Your task to perform on an android device: check data usage Image 0: 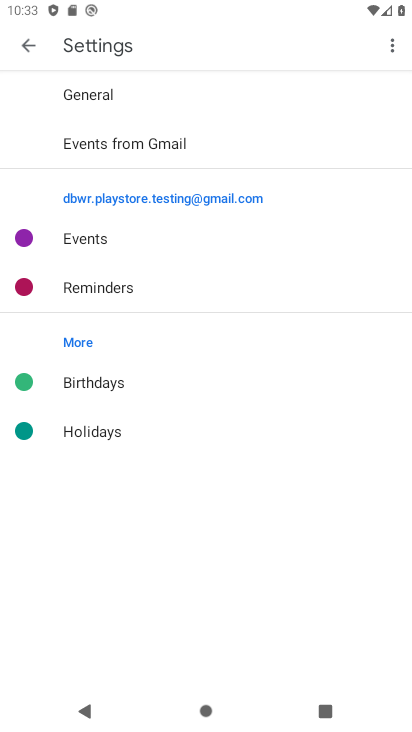
Step 0: press home button
Your task to perform on an android device: check data usage Image 1: 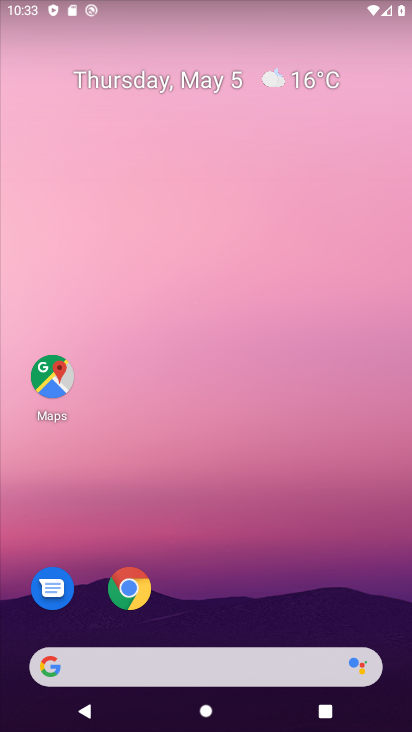
Step 1: drag from (232, 581) to (284, 147)
Your task to perform on an android device: check data usage Image 2: 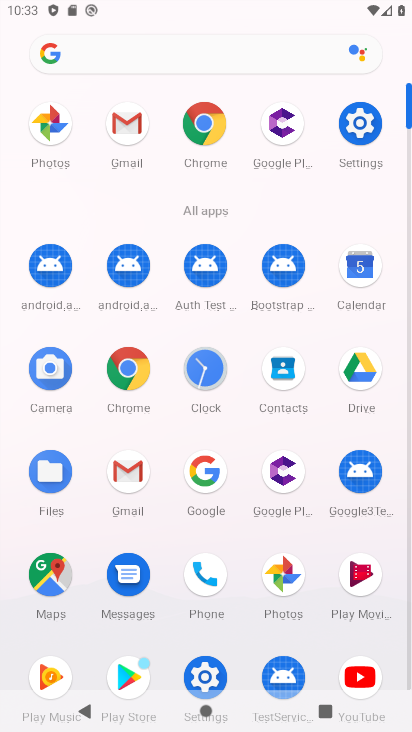
Step 2: click (360, 133)
Your task to perform on an android device: check data usage Image 3: 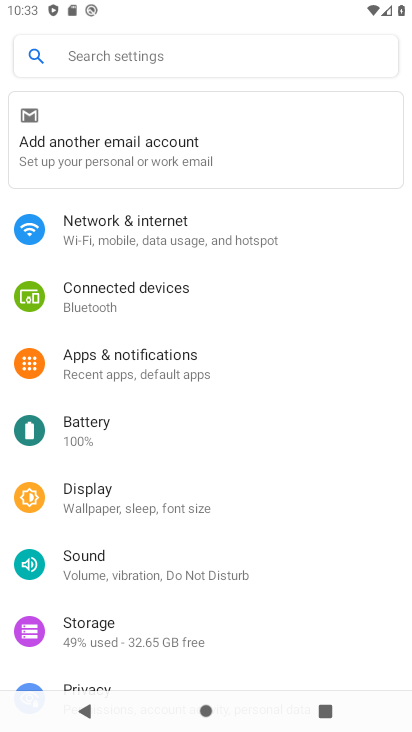
Step 3: click (219, 229)
Your task to perform on an android device: check data usage Image 4: 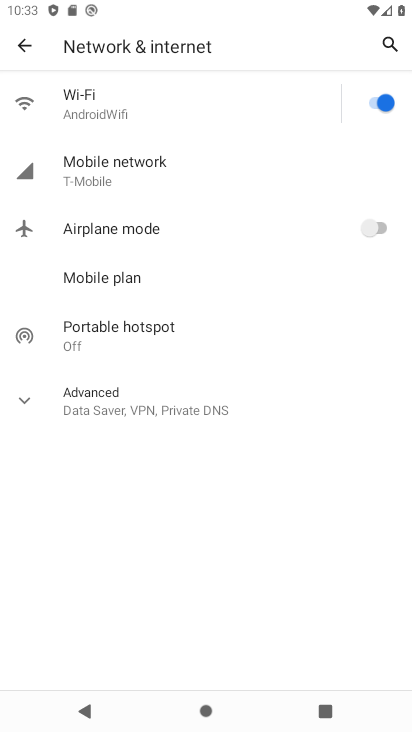
Step 4: click (169, 108)
Your task to perform on an android device: check data usage Image 5: 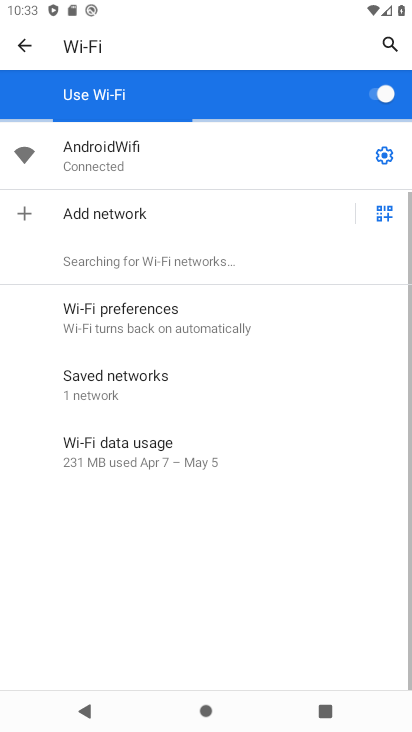
Step 5: click (148, 437)
Your task to perform on an android device: check data usage Image 6: 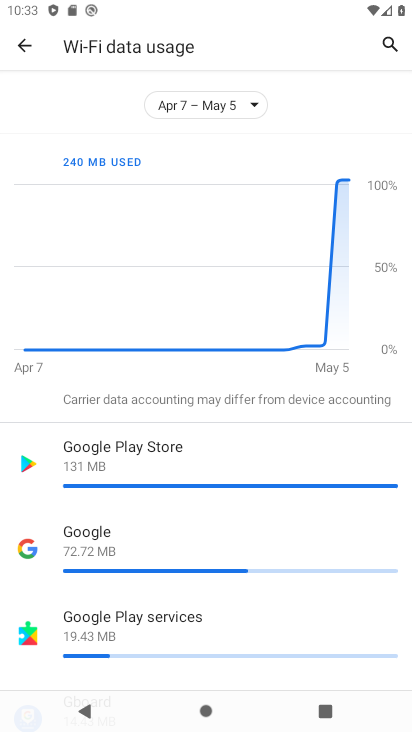
Step 6: task complete